Your task to perform on an android device: Go to accessibility settings Image 0: 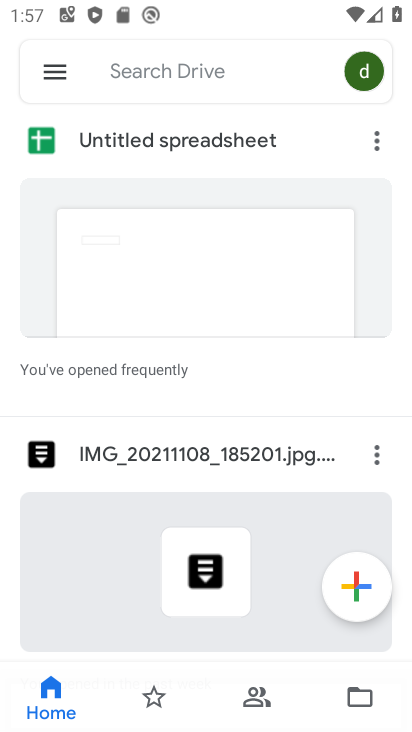
Step 0: press home button
Your task to perform on an android device: Go to accessibility settings Image 1: 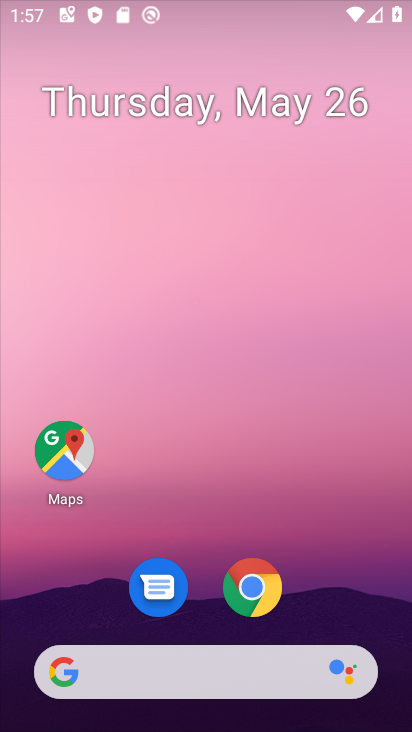
Step 1: drag from (318, 578) to (319, 143)
Your task to perform on an android device: Go to accessibility settings Image 2: 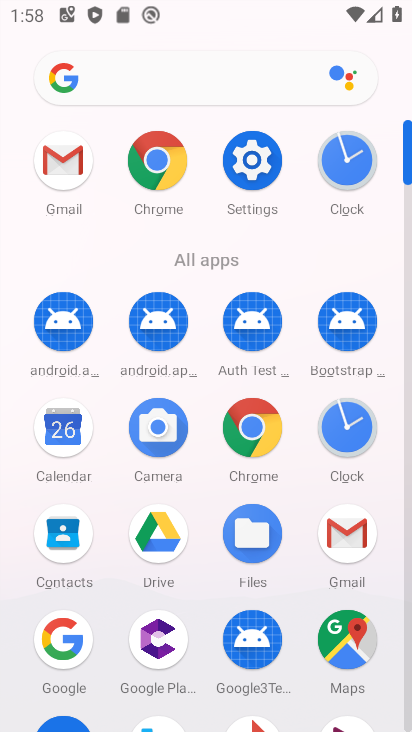
Step 2: click (255, 165)
Your task to perform on an android device: Go to accessibility settings Image 3: 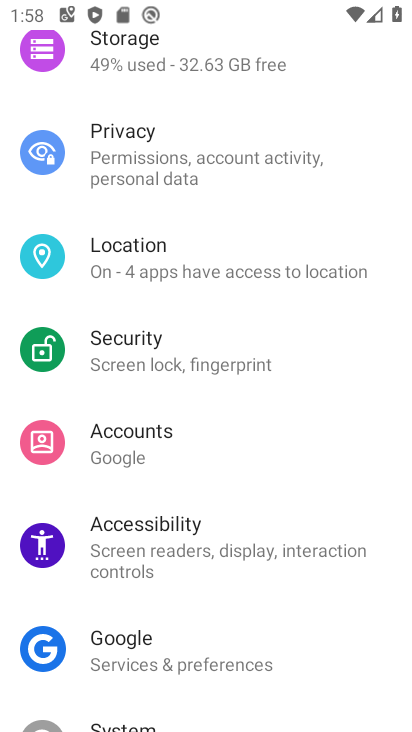
Step 3: drag from (237, 610) to (260, 369)
Your task to perform on an android device: Go to accessibility settings Image 4: 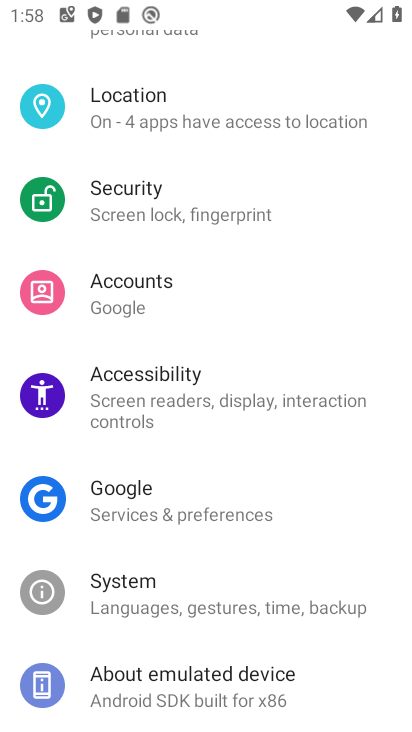
Step 4: click (198, 405)
Your task to perform on an android device: Go to accessibility settings Image 5: 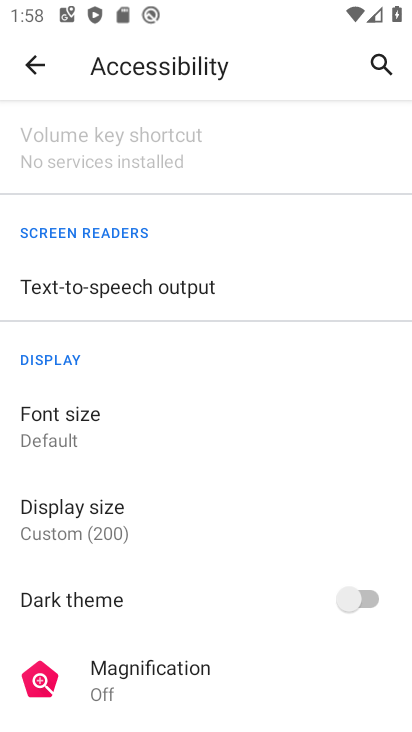
Step 5: task complete